Your task to perform on an android device: change timer sound Image 0: 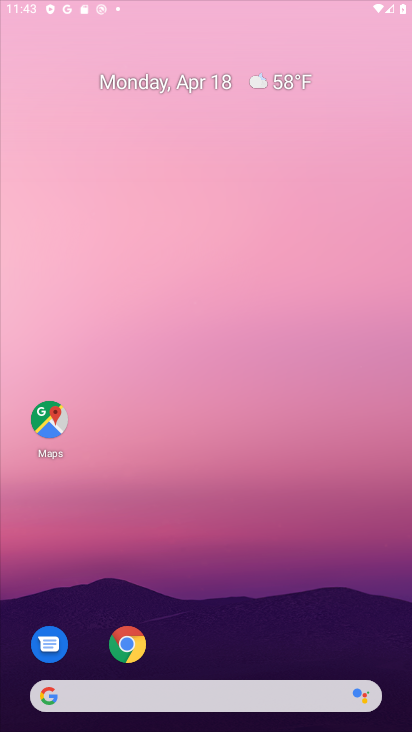
Step 0: click (286, 166)
Your task to perform on an android device: change timer sound Image 1: 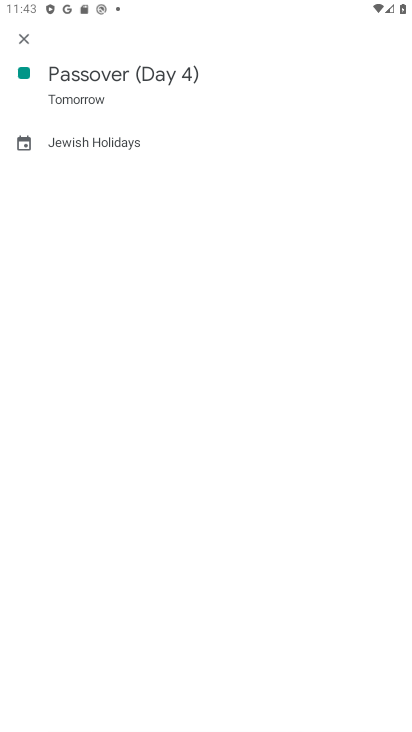
Step 1: press home button
Your task to perform on an android device: change timer sound Image 2: 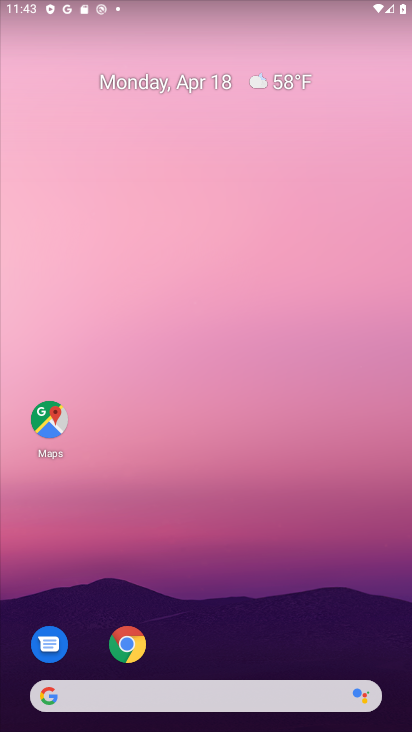
Step 2: drag from (305, 556) to (365, 125)
Your task to perform on an android device: change timer sound Image 3: 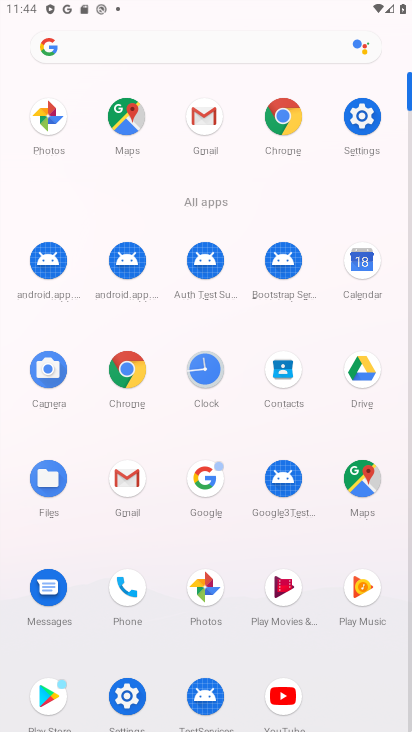
Step 3: click (217, 376)
Your task to perform on an android device: change timer sound Image 4: 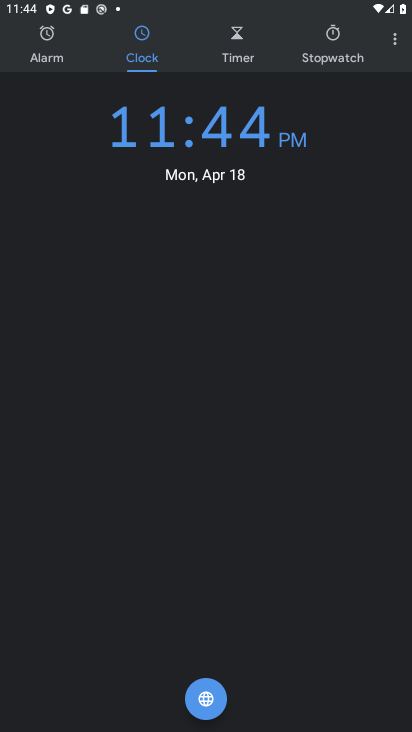
Step 4: click (390, 41)
Your task to perform on an android device: change timer sound Image 5: 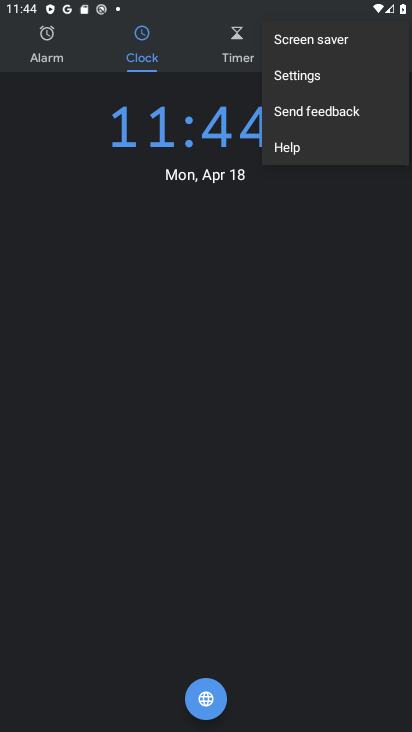
Step 5: click (332, 68)
Your task to perform on an android device: change timer sound Image 6: 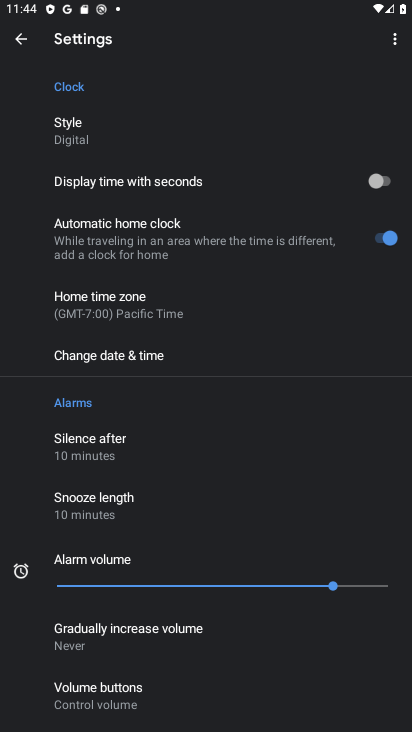
Step 6: drag from (161, 639) to (220, 284)
Your task to perform on an android device: change timer sound Image 7: 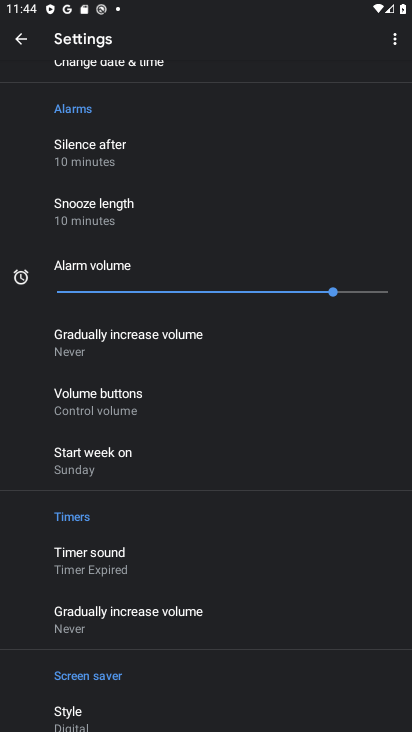
Step 7: click (134, 567)
Your task to perform on an android device: change timer sound Image 8: 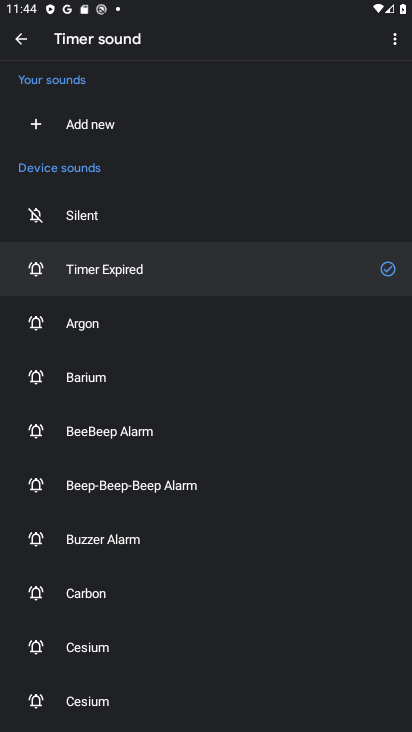
Step 8: click (135, 334)
Your task to perform on an android device: change timer sound Image 9: 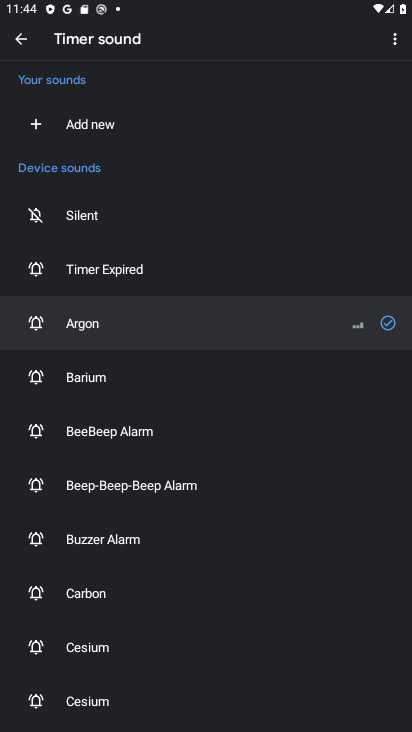
Step 9: task complete